Your task to perform on an android device: allow notifications from all sites in the chrome app Image 0: 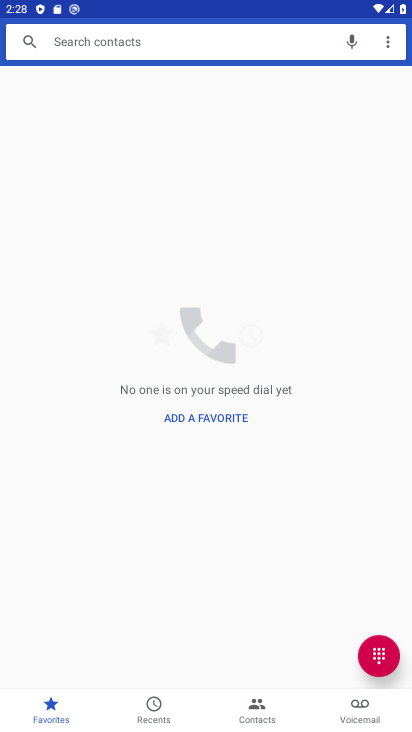
Step 0: press home button
Your task to perform on an android device: allow notifications from all sites in the chrome app Image 1: 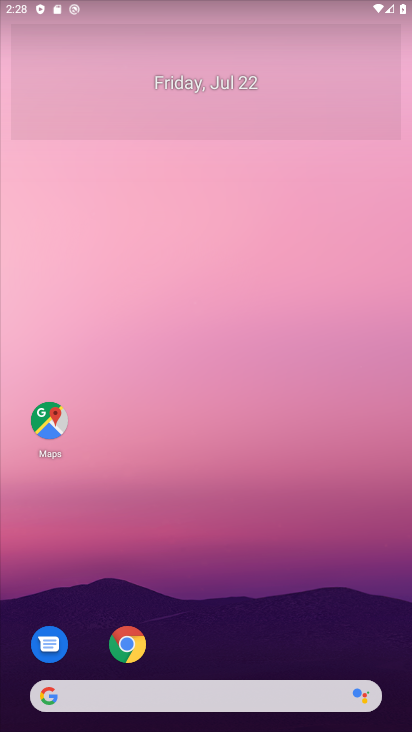
Step 1: drag from (244, 644) to (261, 255)
Your task to perform on an android device: allow notifications from all sites in the chrome app Image 2: 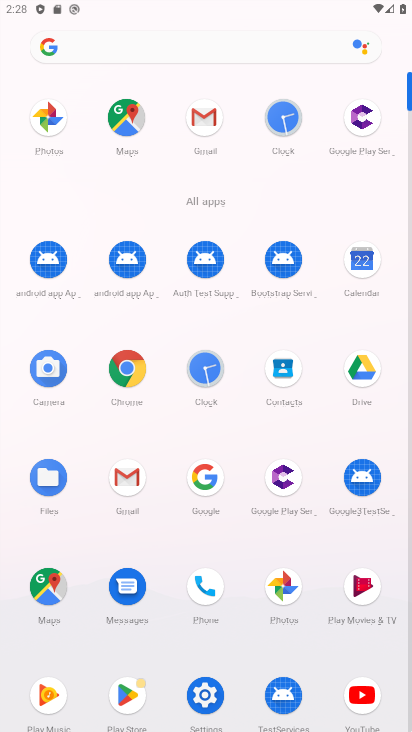
Step 2: click (124, 374)
Your task to perform on an android device: allow notifications from all sites in the chrome app Image 3: 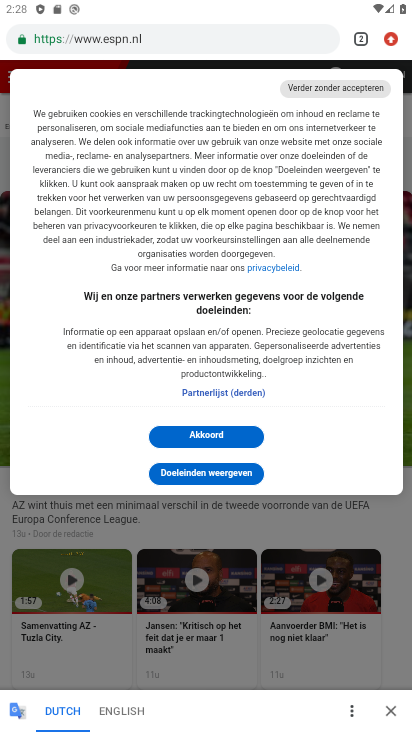
Step 3: drag from (391, 39) to (252, 514)
Your task to perform on an android device: allow notifications from all sites in the chrome app Image 4: 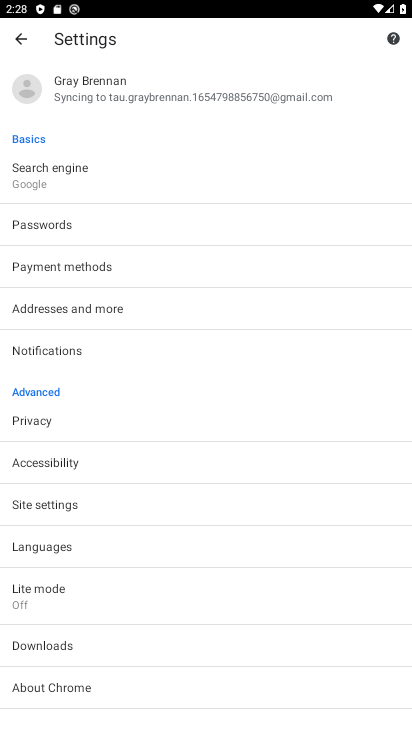
Step 4: click (38, 510)
Your task to perform on an android device: allow notifications from all sites in the chrome app Image 5: 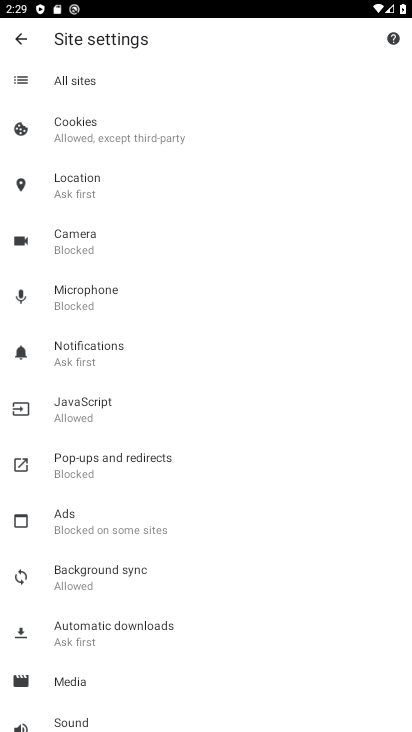
Step 5: click (80, 357)
Your task to perform on an android device: allow notifications from all sites in the chrome app Image 6: 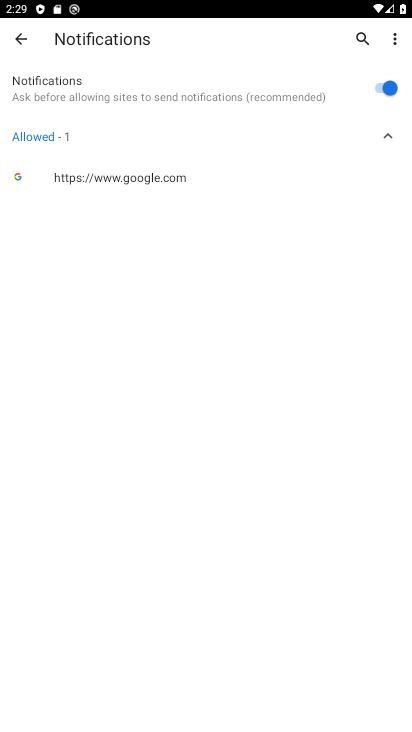
Step 6: task complete